Your task to perform on an android device: open app "NewsBreak: Local News & Alerts" (install if not already installed) Image 0: 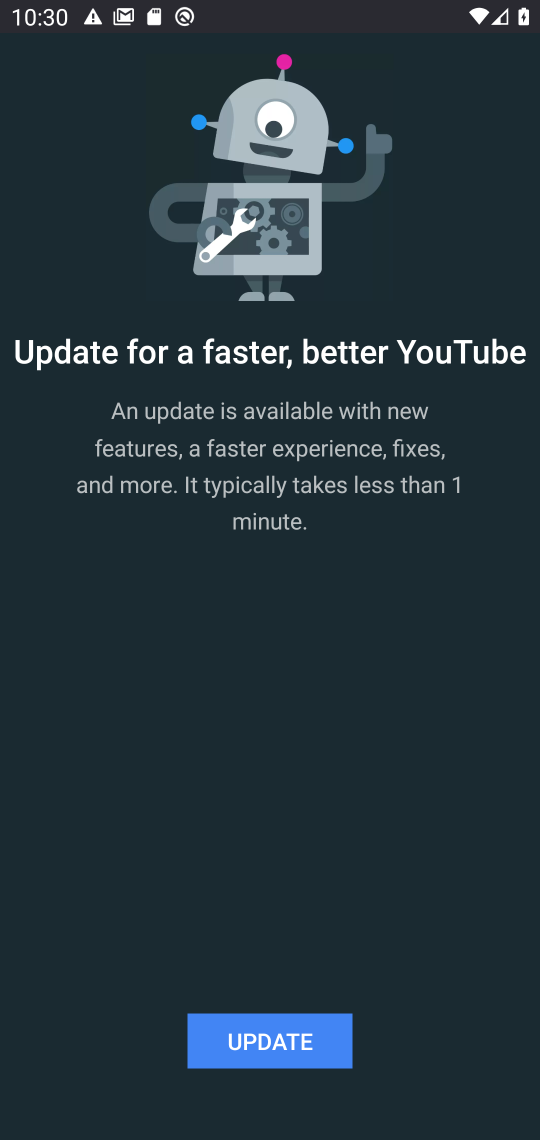
Step 0: press home button
Your task to perform on an android device: open app "NewsBreak: Local News & Alerts" (install if not already installed) Image 1: 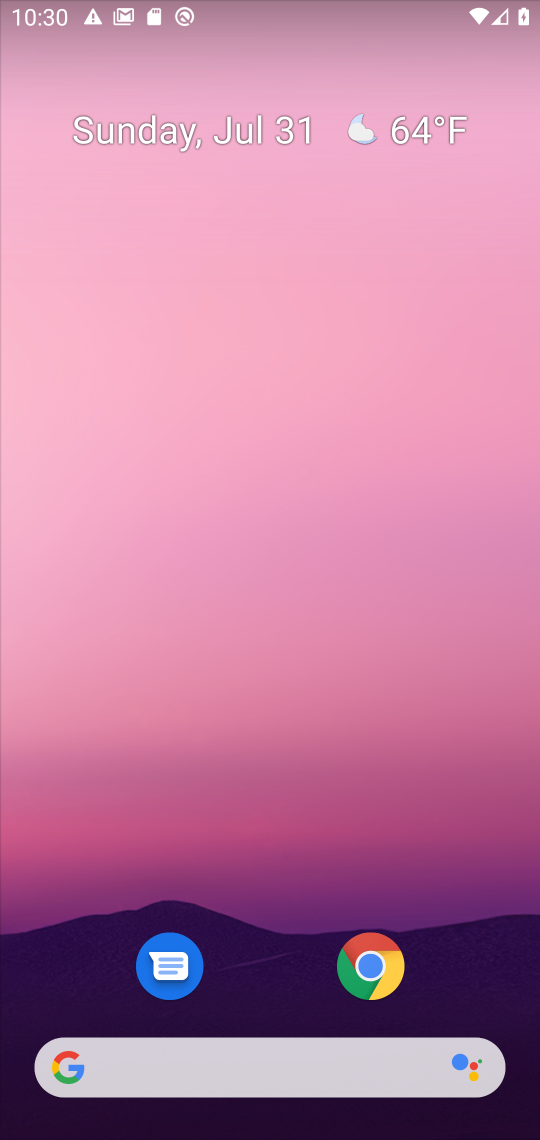
Step 1: drag from (260, 586) to (79, 9)
Your task to perform on an android device: open app "NewsBreak: Local News & Alerts" (install if not already installed) Image 2: 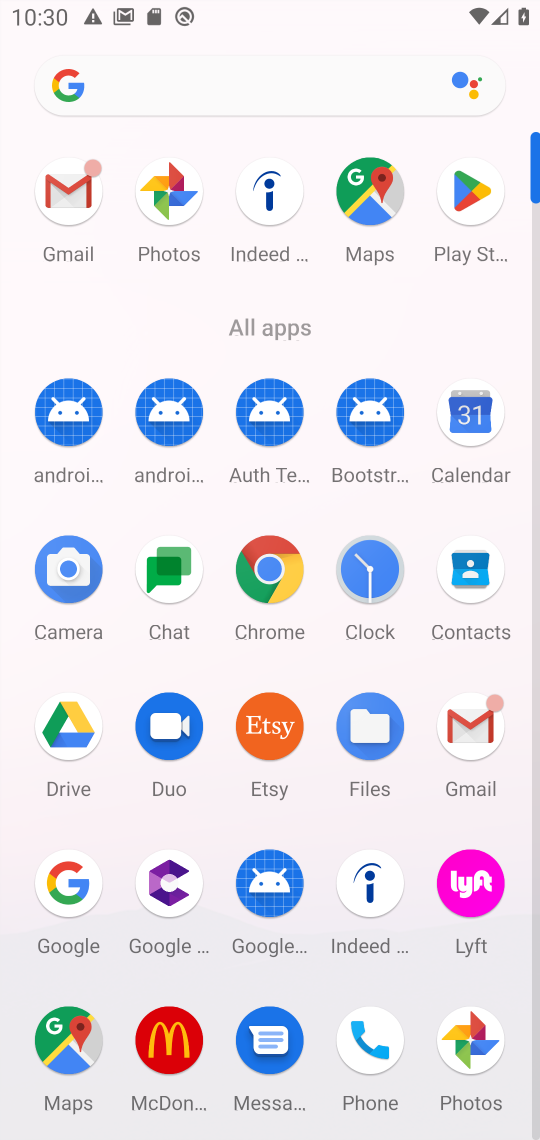
Step 2: click (483, 224)
Your task to perform on an android device: open app "NewsBreak: Local News & Alerts" (install if not already installed) Image 3: 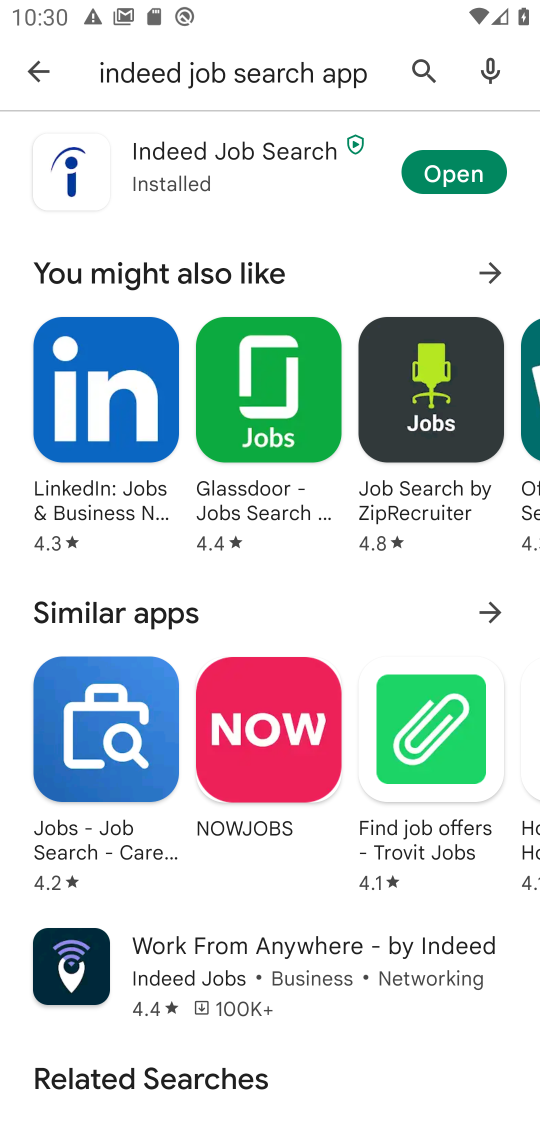
Step 3: click (182, 65)
Your task to perform on an android device: open app "NewsBreak: Local News & Alerts" (install if not already installed) Image 4: 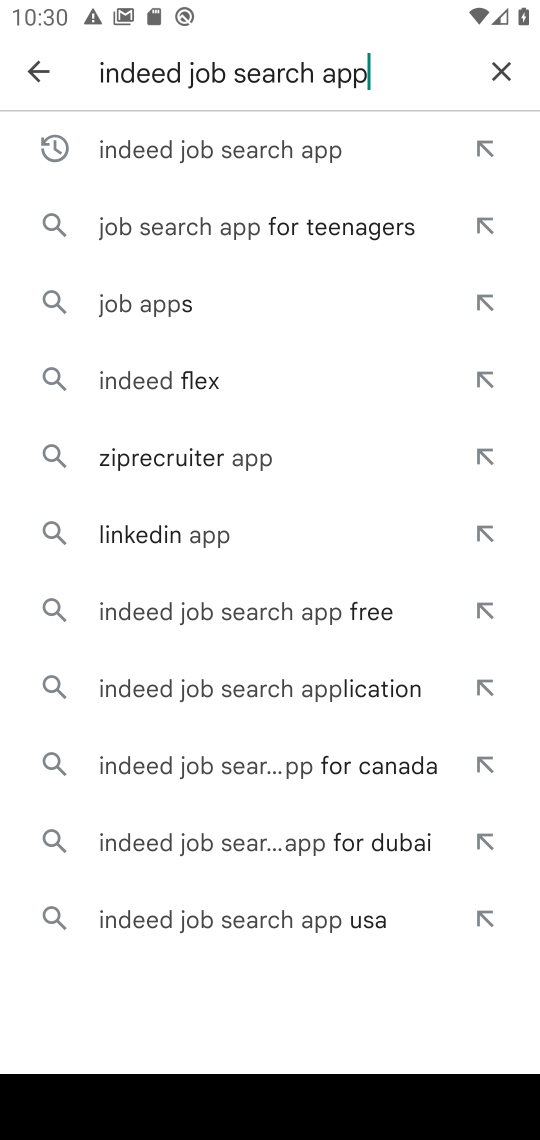
Step 4: click (503, 67)
Your task to perform on an android device: open app "NewsBreak: Local News & Alerts" (install if not already installed) Image 5: 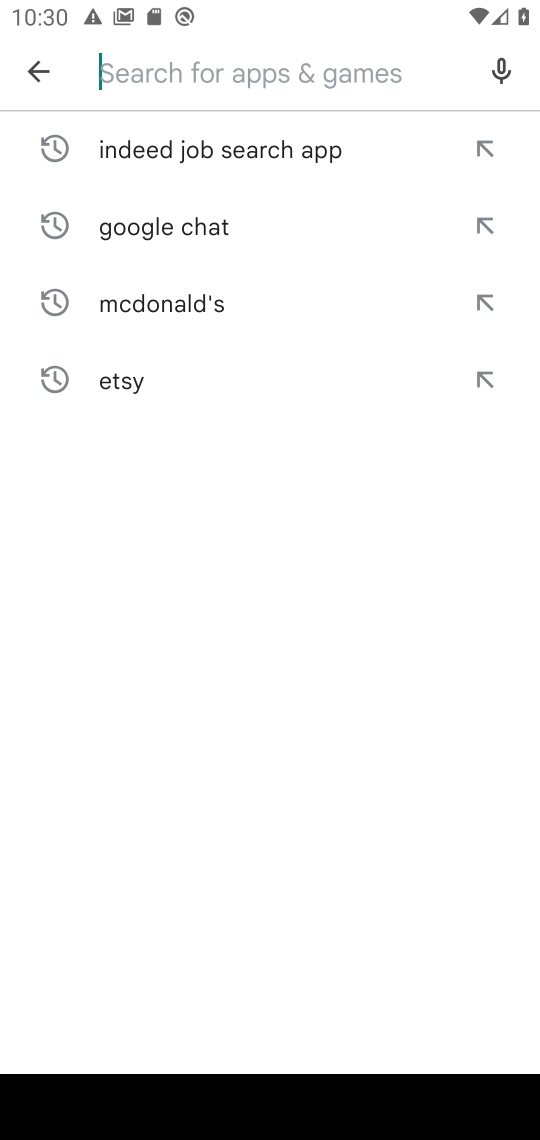
Step 5: type "newsbreak"
Your task to perform on an android device: open app "NewsBreak: Local News & Alerts" (install if not already installed) Image 6: 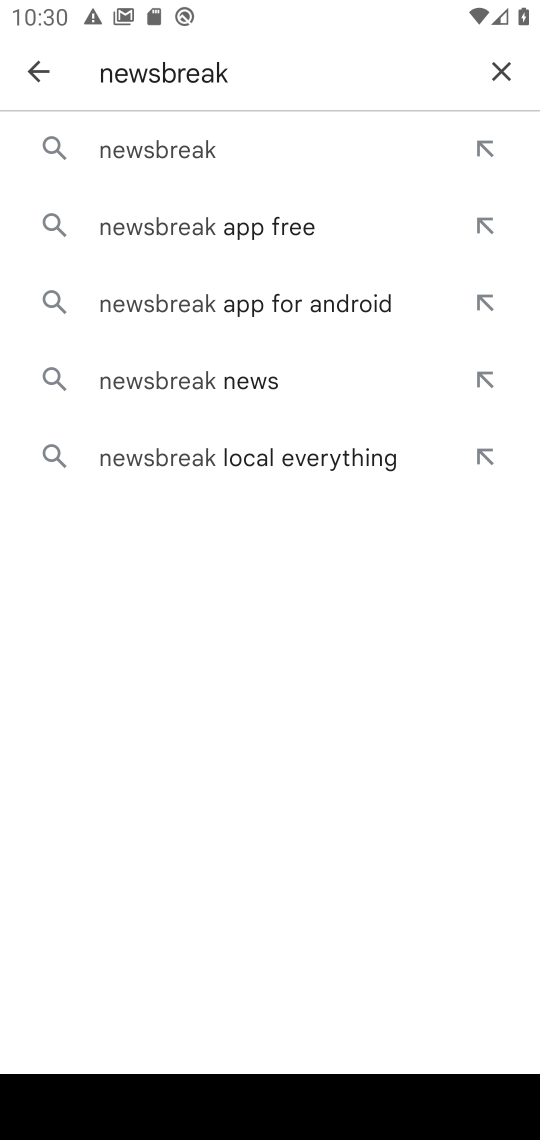
Step 6: click (181, 171)
Your task to perform on an android device: open app "NewsBreak: Local News & Alerts" (install if not already installed) Image 7: 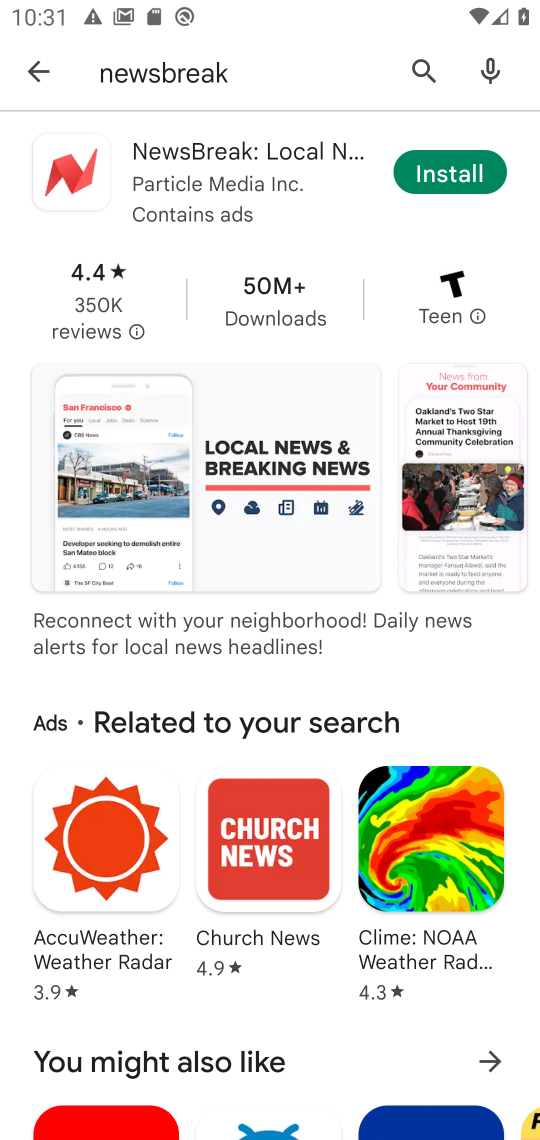
Step 7: click (470, 170)
Your task to perform on an android device: open app "NewsBreak: Local News & Alerts" (install if not already installed) Image 8: 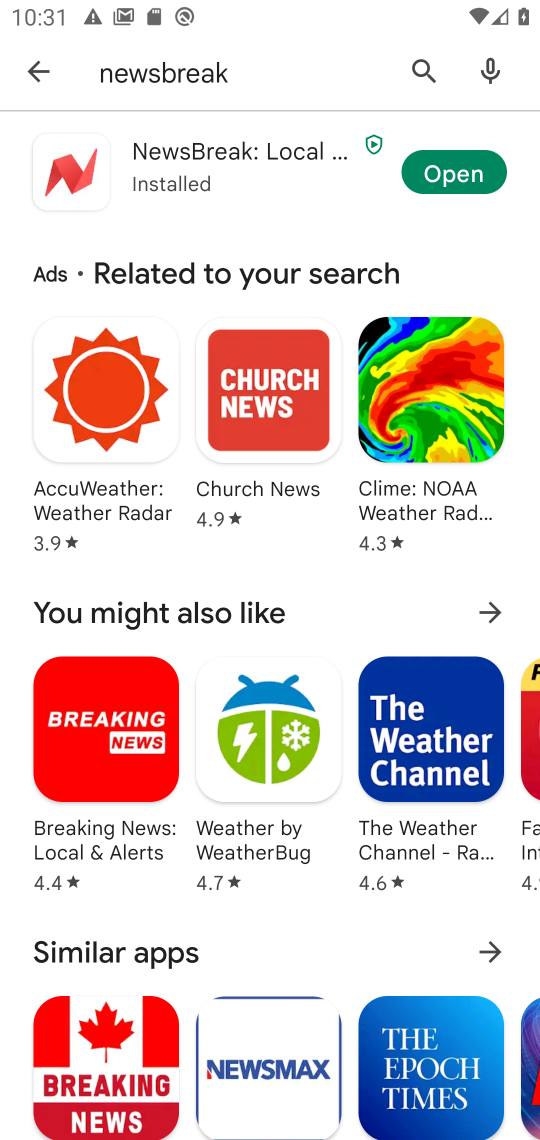
Step 8: click (483, 177)
Your task to perform on an android device: open app "NewsBreak: Local News & Alerts" (install if not already installed) Image 9: 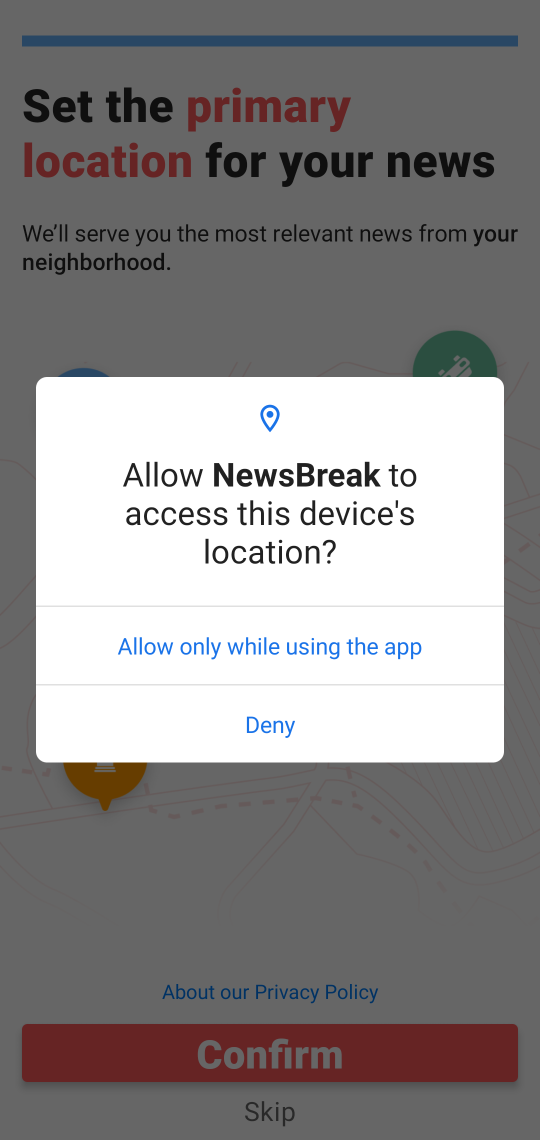
Step 9: click (292, 647)
Your task to perform on an android device: open app "NewsBreak: Local News & Alerts" (install if not already installed) Image 10: 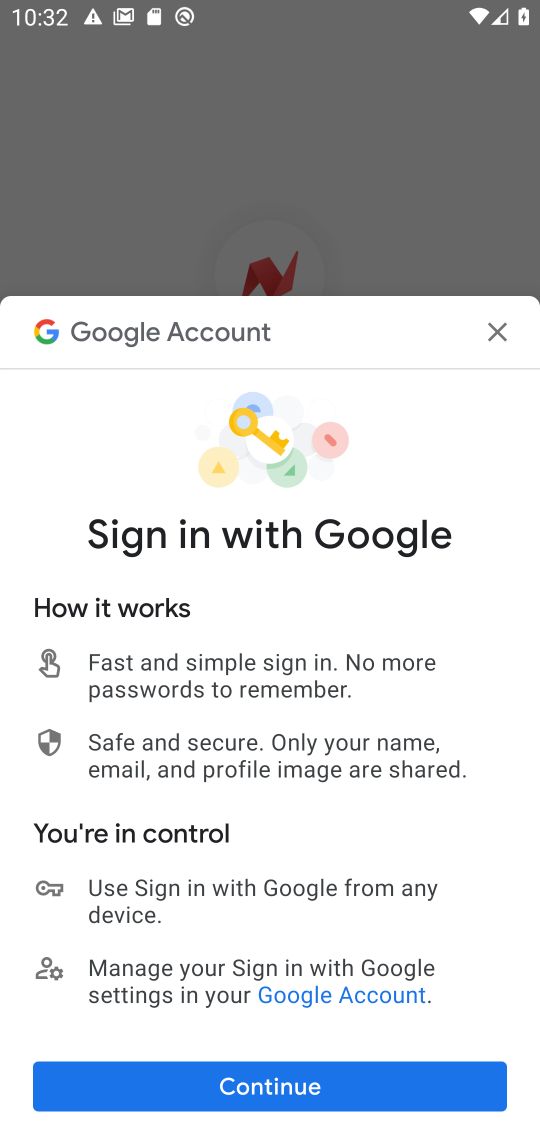
Step 10: click (394, 1092)
Your task to perform on an android device: open app "NewsBreak: Local News & Alerts" (install if not already installed) Image 11: 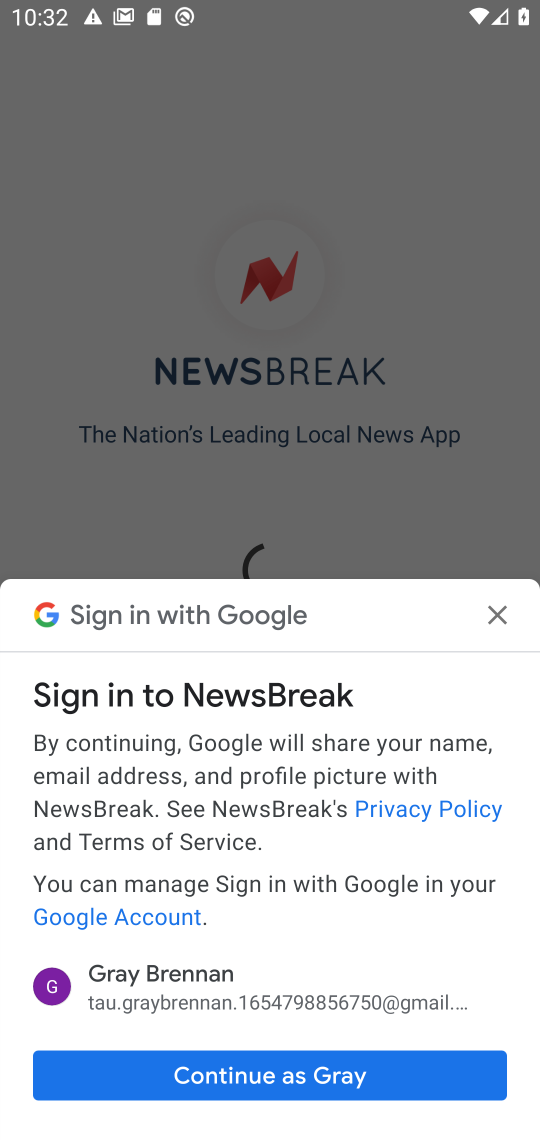
Step 11: click (250, 1093)
Your task to perform on an android device: open app "NewsBreak: Local News & Alerts" (install if not already installed) Image 12: 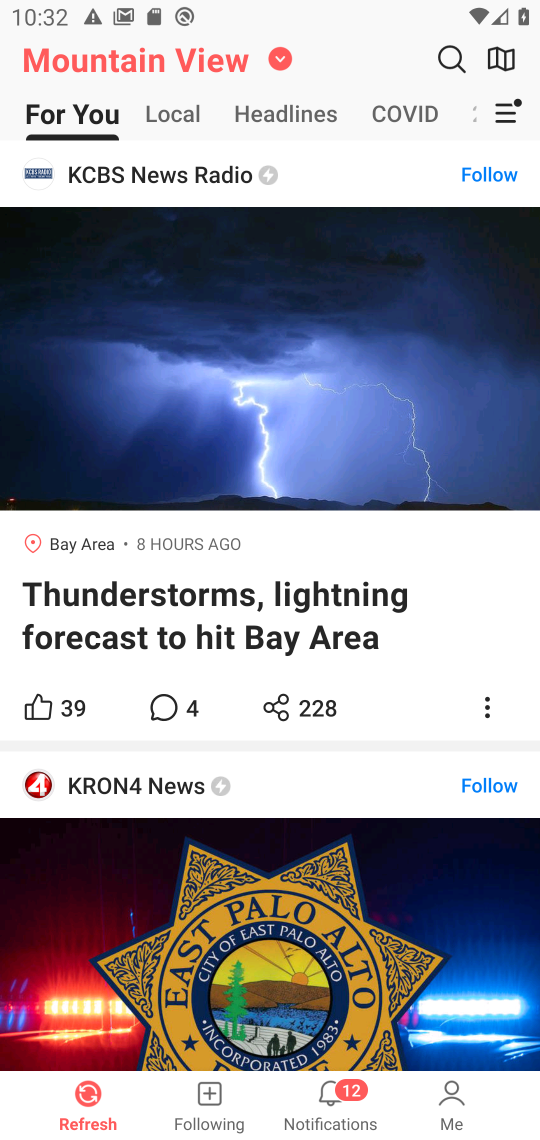
Step 12: task complete